Your task to perform on an android device: toggle data saver in the chrome app Image 0: 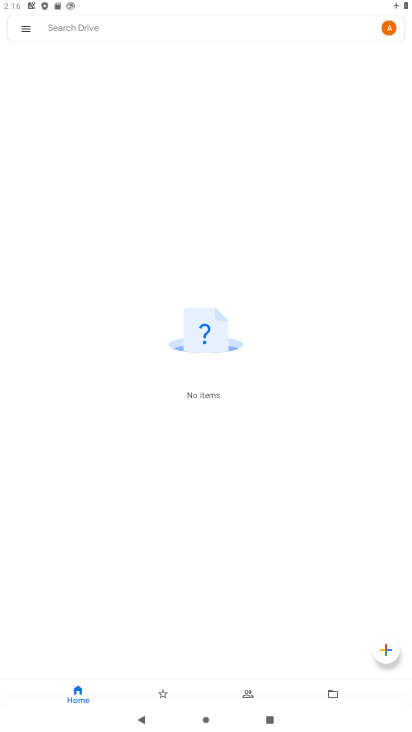
Step 0: press home button
Your task to perform on an android device: toggle data saver in the chrome app Image 1: 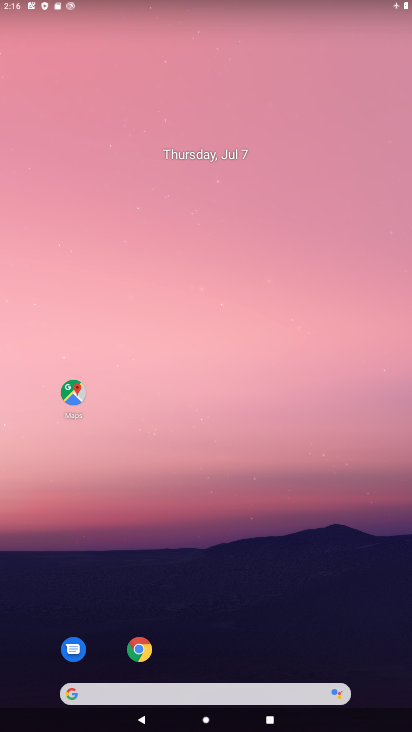
Step 1: drag from (245, 703) to (271, 92)
Your task to perform on an android device: toggle data saver in the chrome app Image 2: 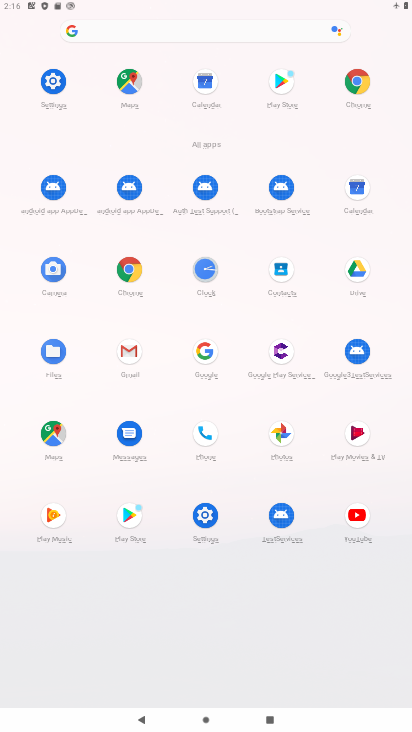
Step 2: click (128, 279)
Your task to perform on an android device: toggle data saver in the chrome app Image 3: 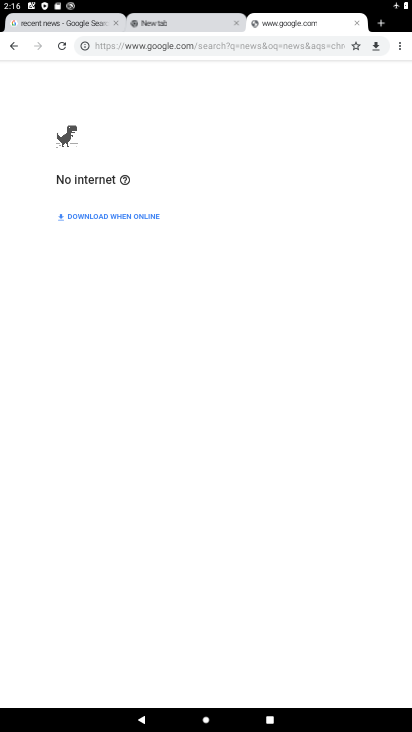
Step 3: drag from (225, 5) to (307, 692)
Your task to perform on an android device: toggle data saver in the chrome app Image 4: 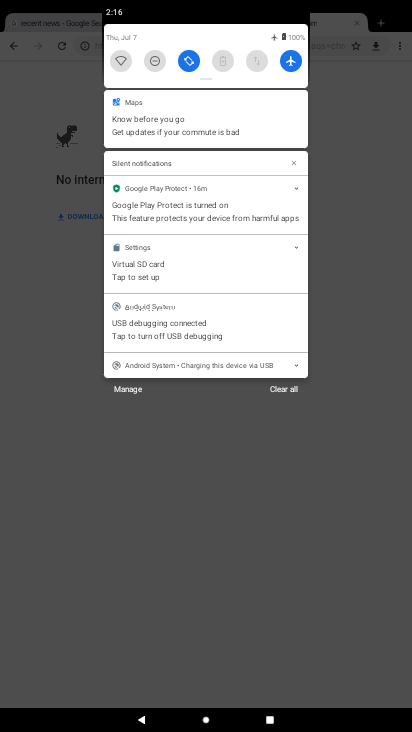
Step 4: click (388, 395)
Your task to perform on an android device: toggle data saver in the chrome app Image 5: 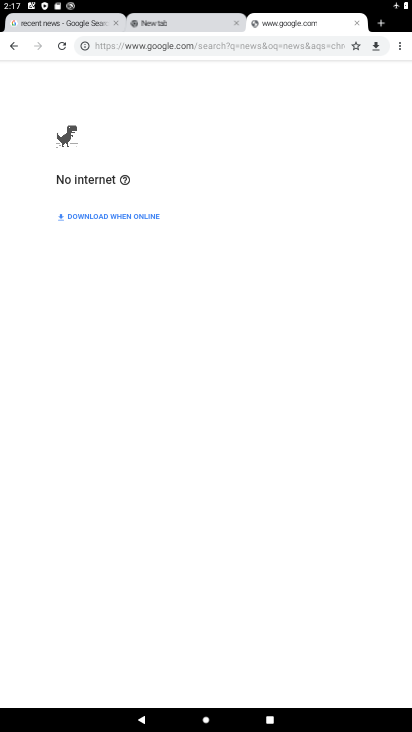
Step 5: drag from (402, 42) to (302, 283)
Your task to perform on an android device: toggle data saver in the chrome app Image 6: 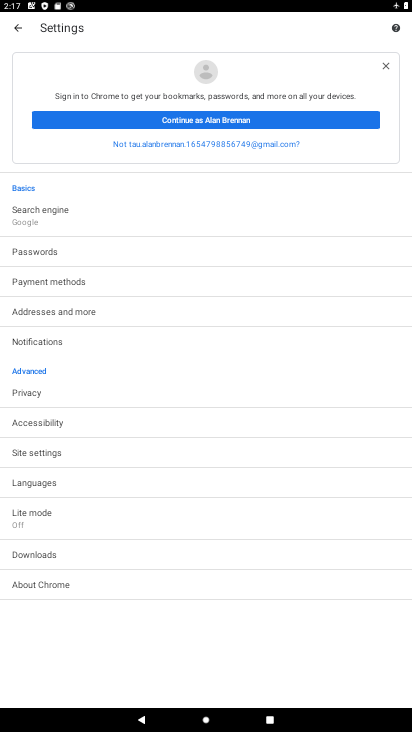
Step 6: click (56, 511)
Your task to perform on an android device: toggle data saver in the chrome app Image 7: 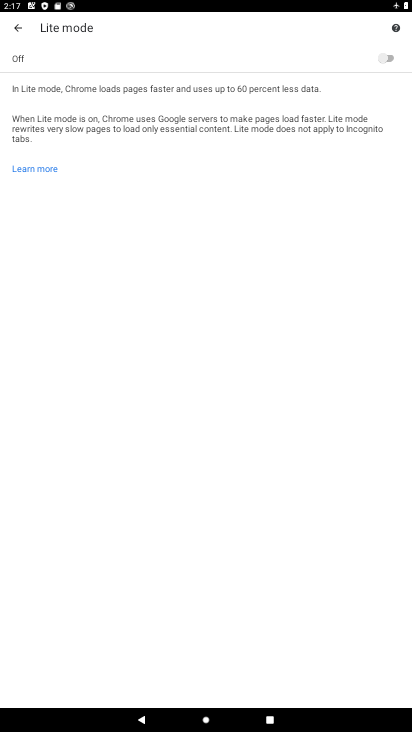
Step 7: click (386, 57)
Your task to perform on an android device: toggle data saver in the chrome app Image 8: 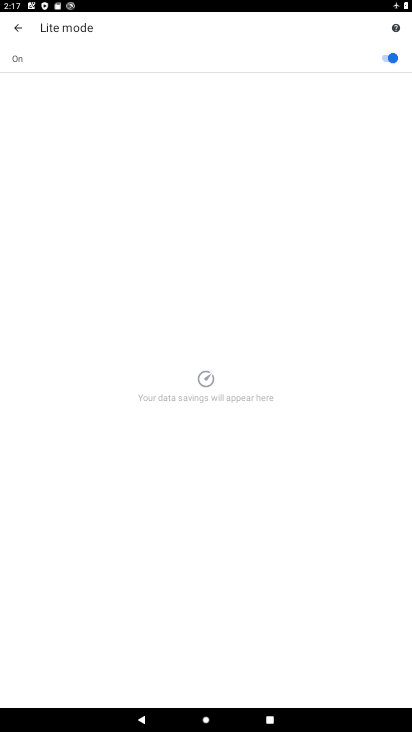
Step 8: task complete